Your task to perform on an android device: open chrome and create a bookmark for the current page Image 0: 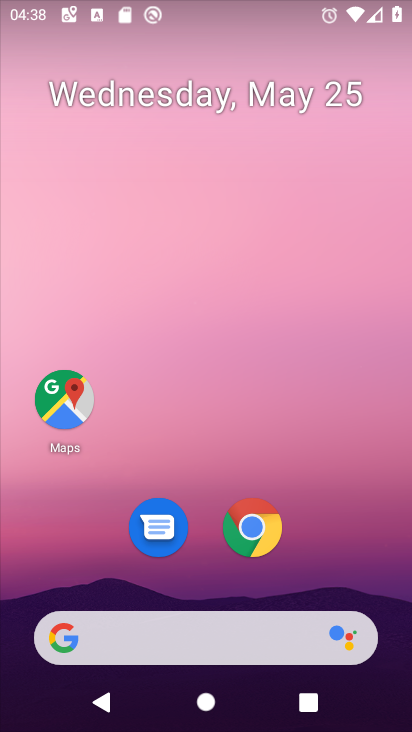
Step 0: drag from (204, 354) to (200, 62)
Your task to perform on an android device: open chrome and create a bookmark for the current page Image 1: 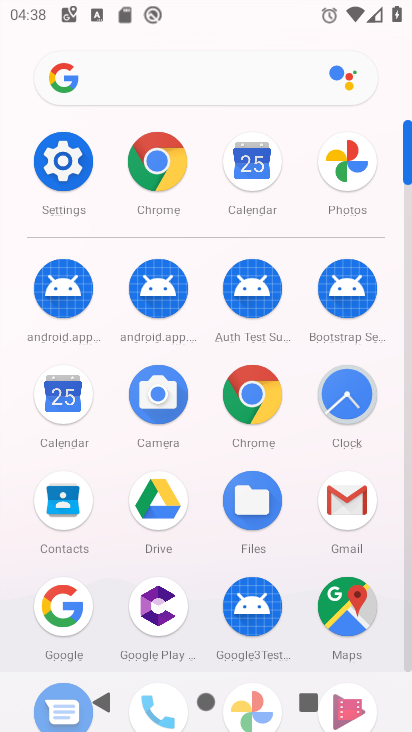
Step 1: click (167, 161)
Your task to perform on an android device: open chrome and create a bookmark for the current page Image 2: 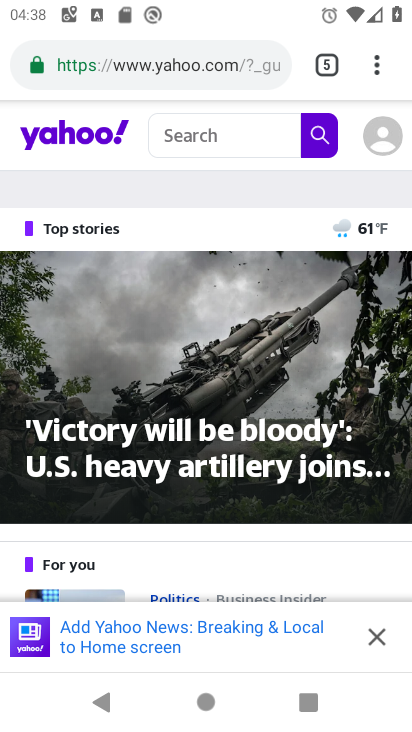
Step 2: click (372, 634)
Your task to perform on an android device: open chrome and create a bookmark for the current page Image 3: 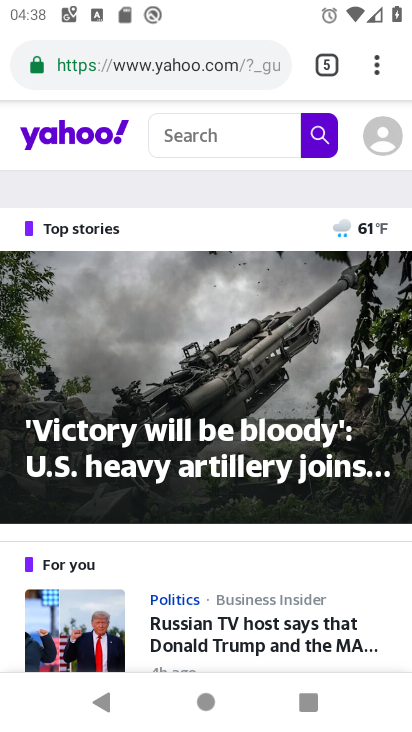
Step 3: click (379, 67)
Your task to perform on an android device: open chrome and create a bookmark for the current page Image 4: 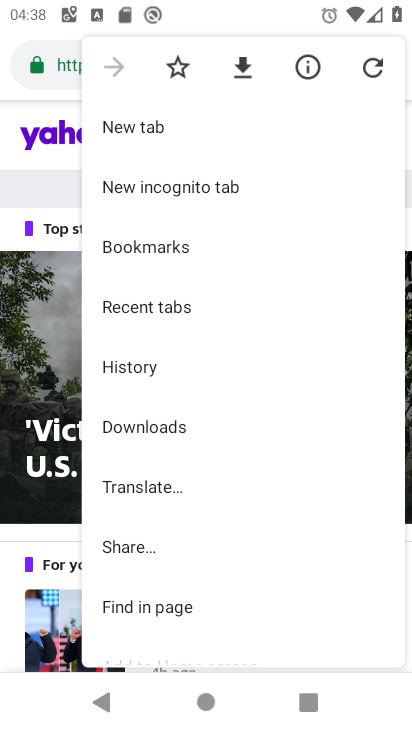
Step 4: click (179, 71)
Your task to perform on an android device: open chrome and create a bookmark for the current page Image 5: 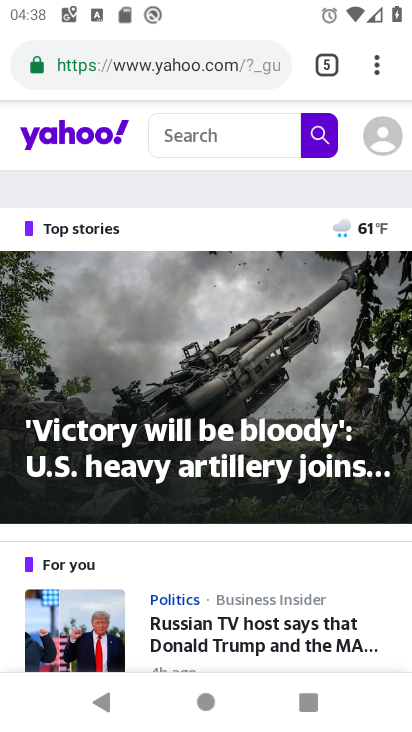
Step 5: click (359, 66)
Your task to perform on an android device: open chrome and create a bookmark for the current page Image 6: 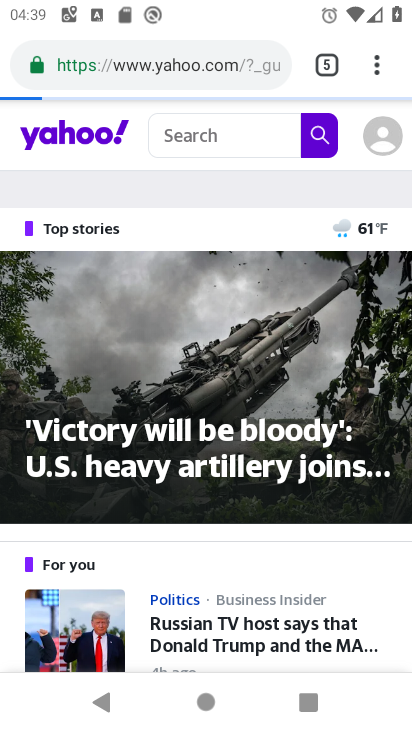
Step 6: click (380, 66)
Your task to perform on an android device: open chrome and create a bookmark for the current page Image 7: 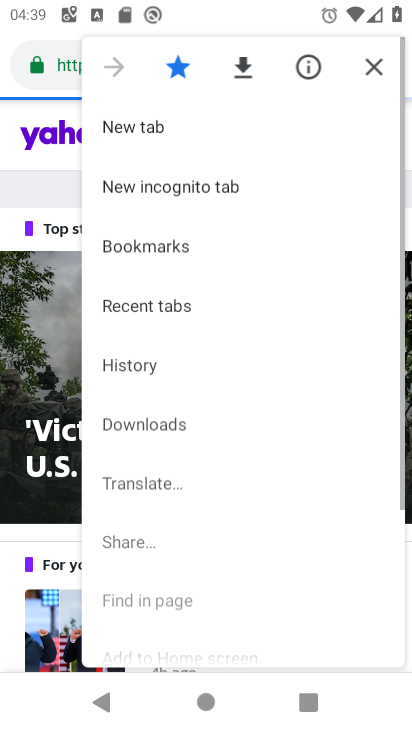
Step 7: click (380, 66)
Your task to perform on an android device: open chrome and create a bookmark for the current page Image 8: 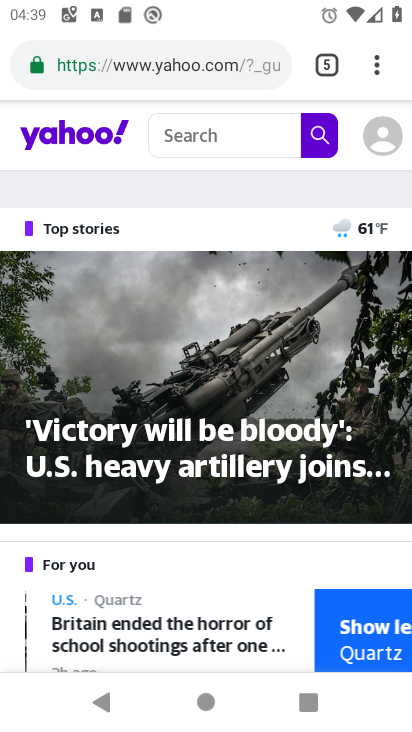
Step 8: click (381, 62)
Your task to perform on an android device: open chrome and create a bookmark for the current page Image 9: 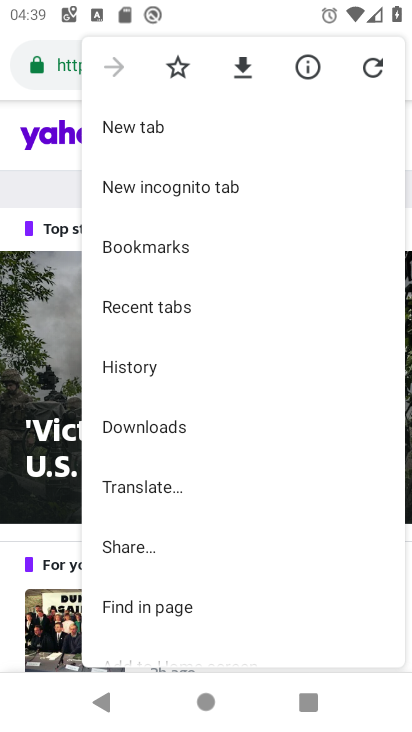
Step 9: click (182, 249)
Your task to perform on an android device: open chrome and create a bookmark for the current page Image 10: 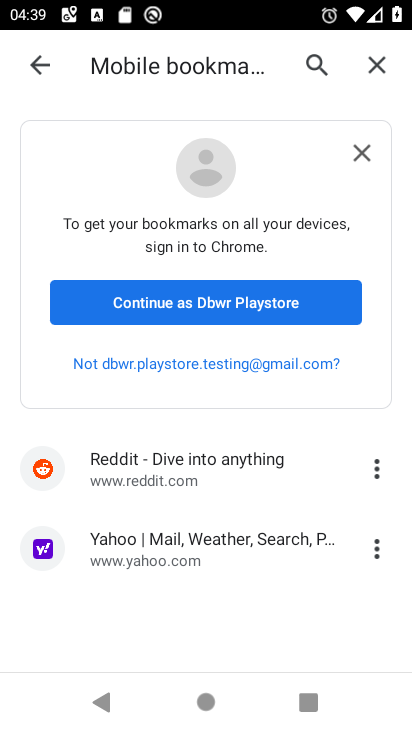
Step 10: click (379, 65)
Your task to perform on an android device: open chrome and create a bookmark for the current page Image 11: 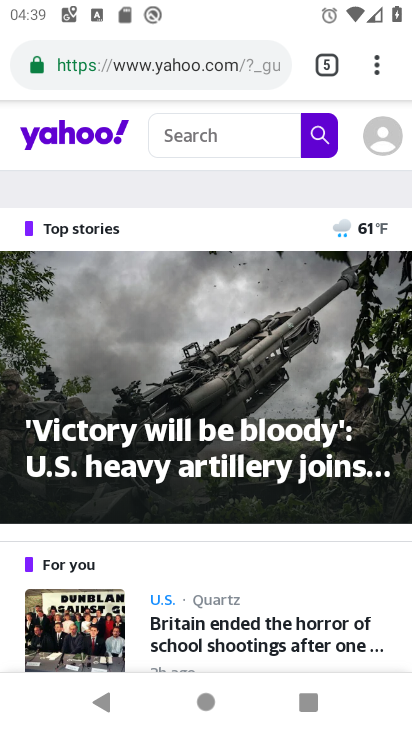
Step 11: task complete